Your task to perform on an android device: turn on location history Image 0: 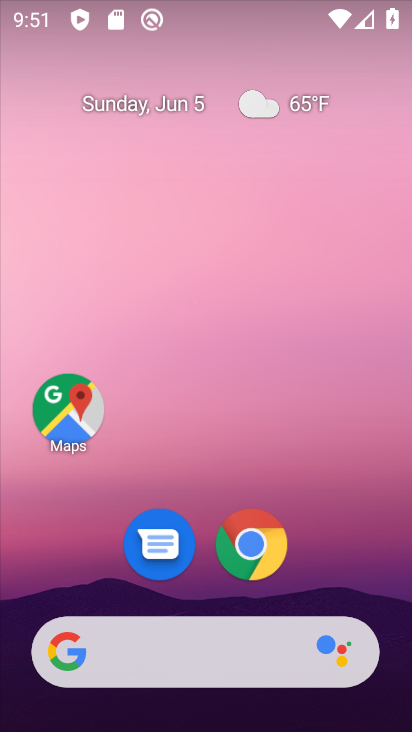
Step 0: drag from (363, 566) to (292, 169)
Your task to perform on an android device: turn on location history Image 1: 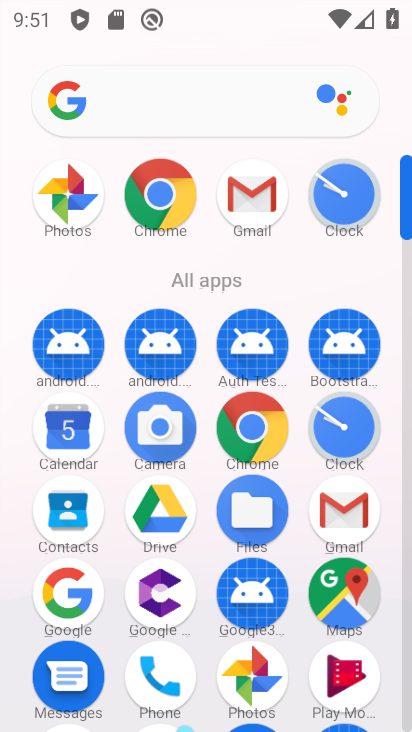
Step 1: click (406, 681)
Your task to perform on an android device: turn on location history Image 2: 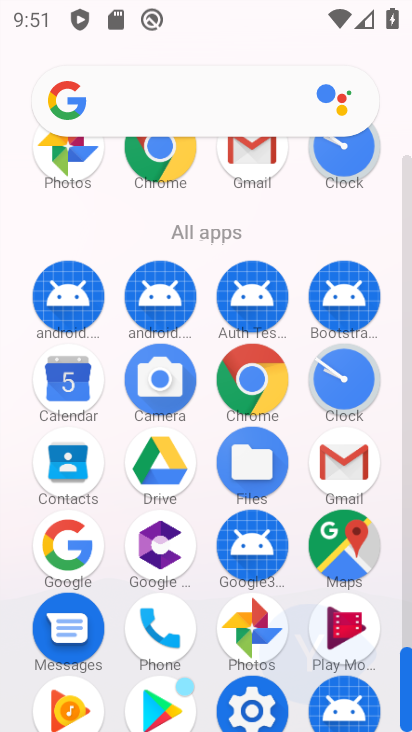
Step 2: click (406, 681)
Your task to perform on an android device: turn on location history Image 3: 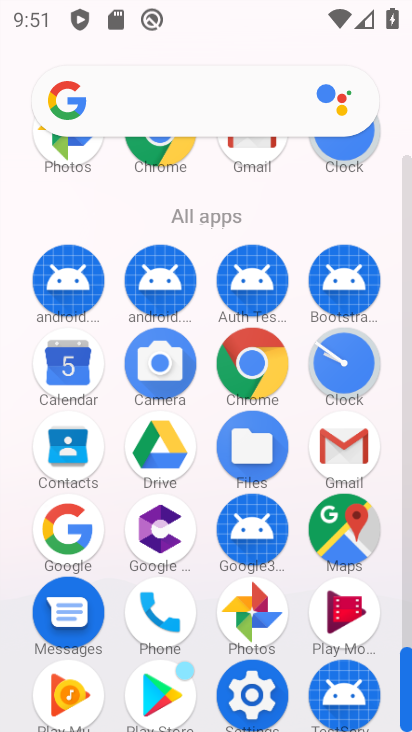
Step 3: click (259, 695)
Your task to perform on an android device: turn on location history Image 4: 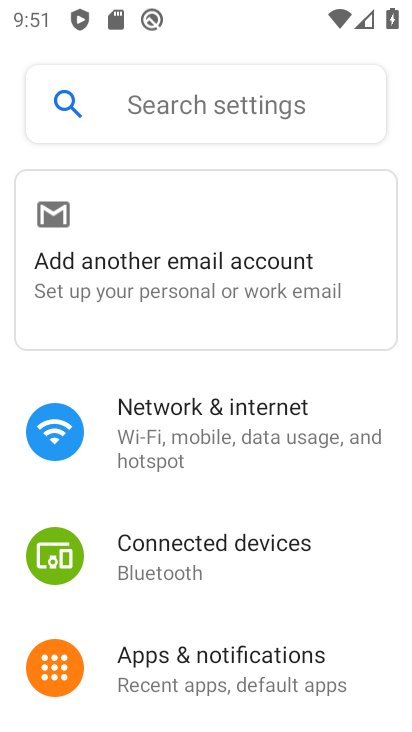
Step 4: task complete